Your task to perform on an android device: allow notifications from all sites in the chrome app Image 0: 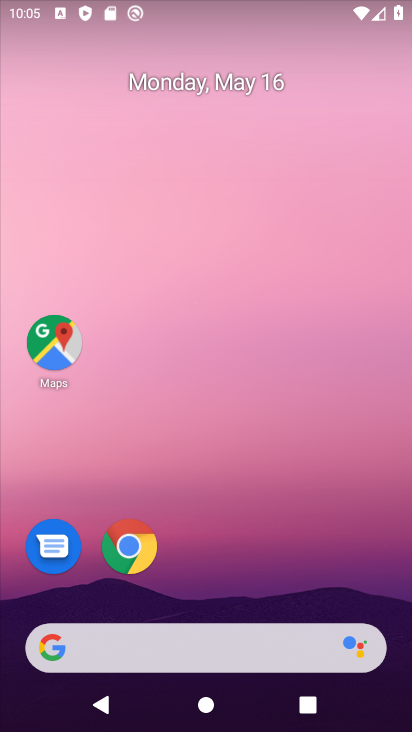
Step 0: click (130, 550)
Your task to perform on an android device: allow notifications from all sites in the chrome app Image 1: 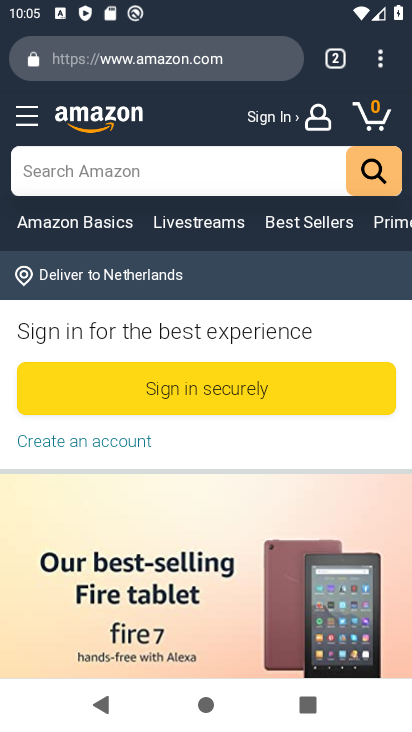
Step 1: click (390, 55)
Your task to perform on an android device: allow notifications from all sites in the chrome app Image 2: 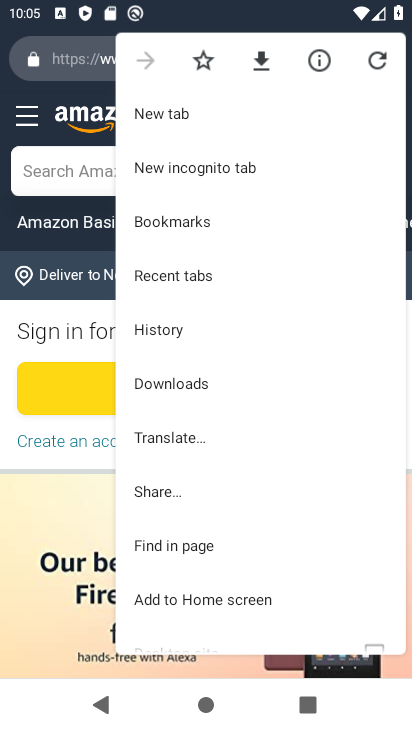
Step 2: drag from (197, 629) to (258, 229)
Your task to perform on an android device: allow notifications from all sites in the chrome app Image 3: 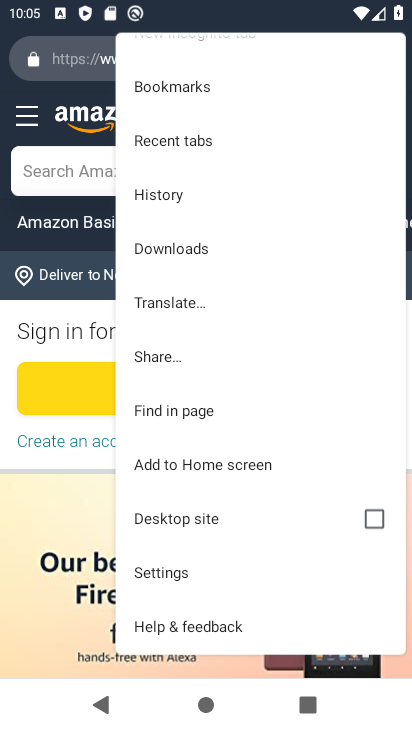
Step 3: click (171, 579)
Your task to perform on an android device: allow notifications from all sites in the chrome app Image 4: 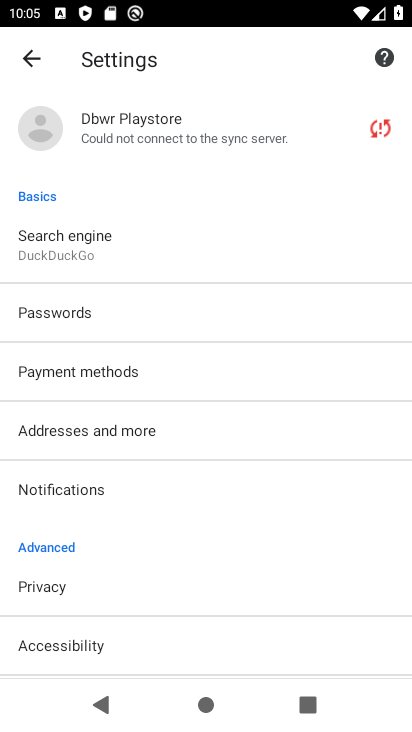
Step 4: click (125, 481)
Your task to perform on an android device: allow notifications from all sites in the chrome app Image 5: 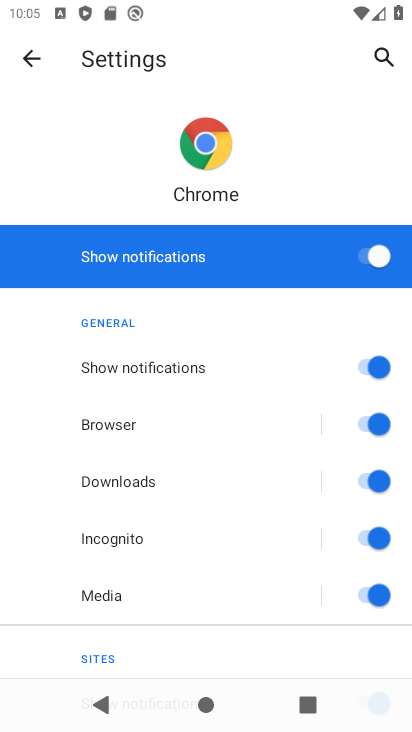
Step 5: task complete